Your task to perform on an android device: empty trash in google photos Image 0: 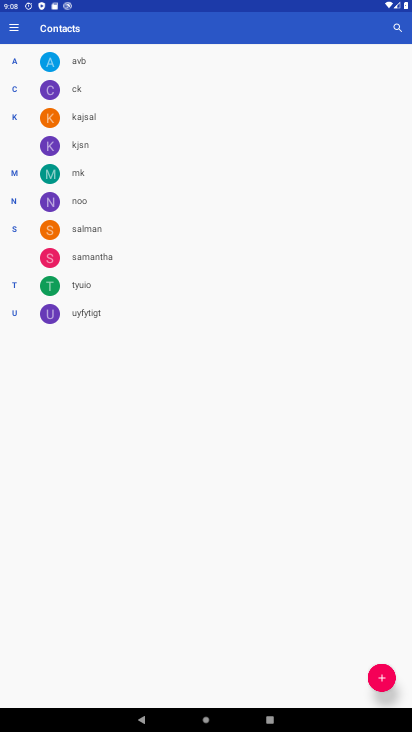
Step 0: press home button
Your task to perform on an android device: empty trash in google photos Image 1: 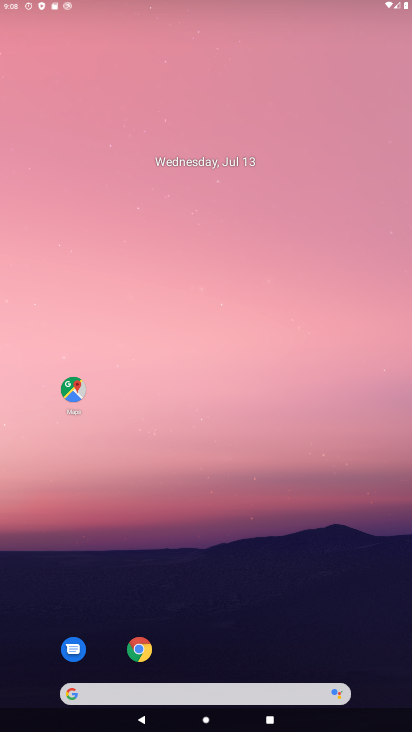
Step 1: drag from (336, 512) to (317, 69)
Your task to perform on an android device: empty trash in google photos Image 2: 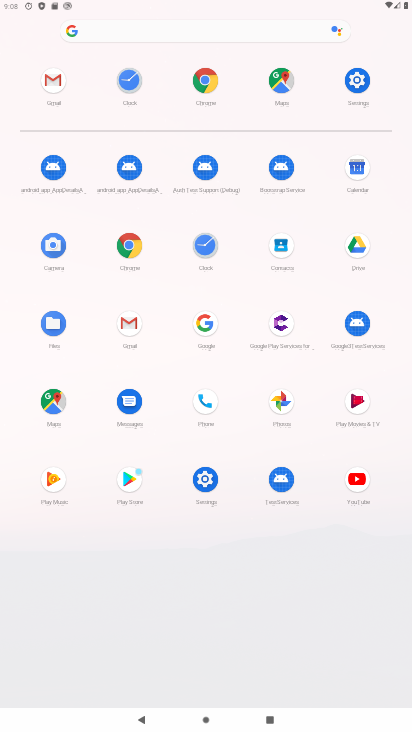
Step 2: click (281, 401)
Your task to perform on an android device: empty trash in google photos Image 3: 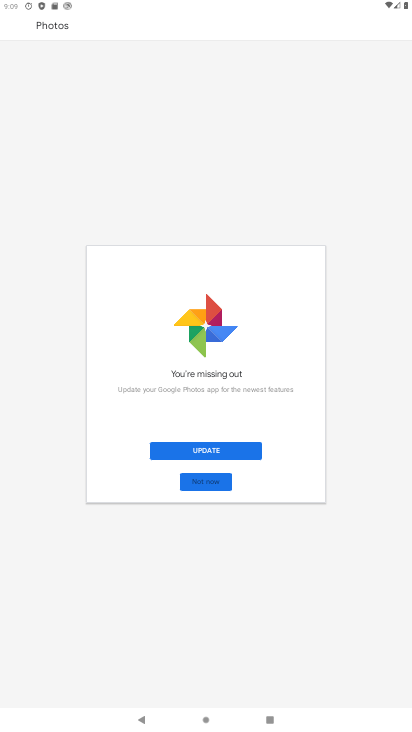
Step 3: click (240, 455)
Your task to perform on an android device: empty trash in google photos Image 4: 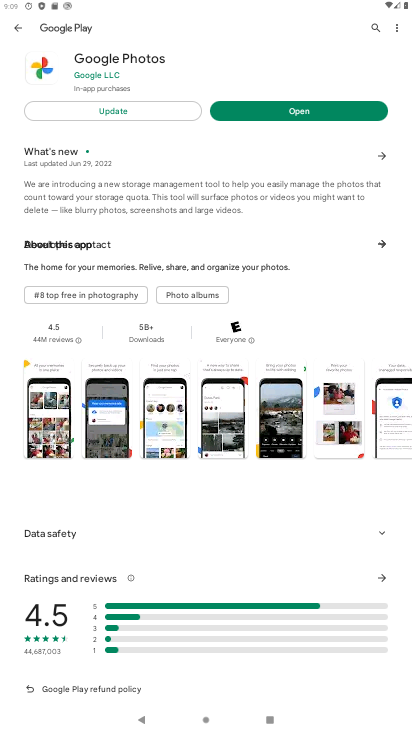
Step 4: click (151, 112)
Your task to perform on an android device: empty trash in google photos Image 5: 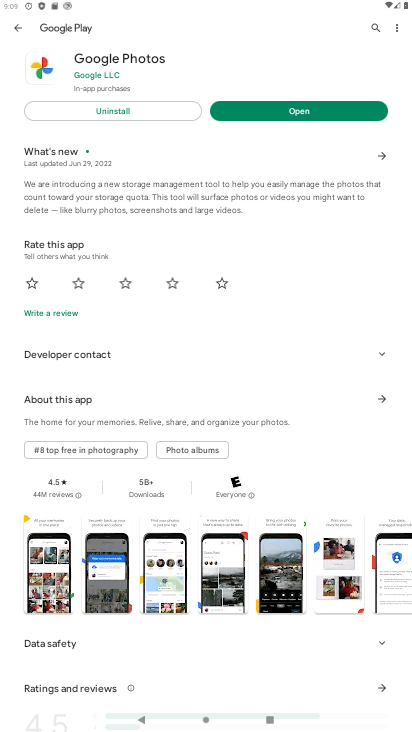
Step 5: click (298, 113)
Your task to perform on an android device: empty trash in google photos Image 6: 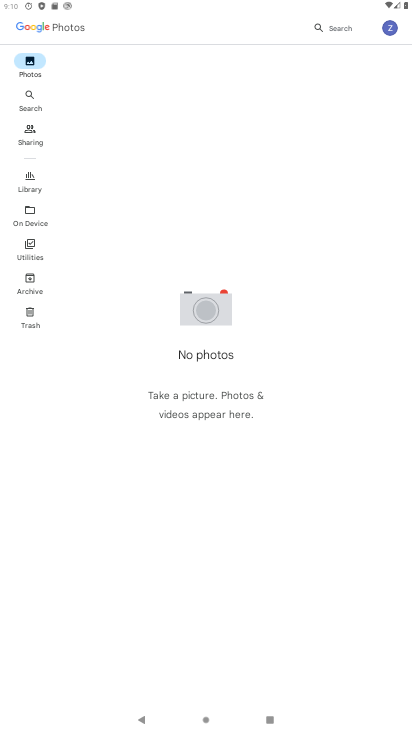
Step 6: click (25, 312)
Your task to perform on an android device: empty trash in google photos Image 7: 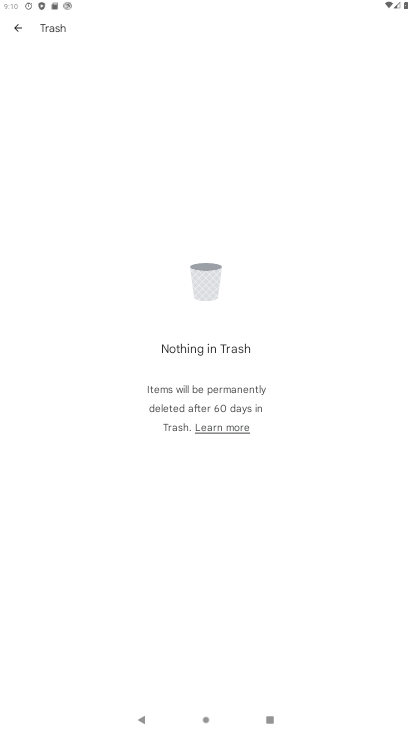
Step 7: task complete